Your task to perform on an android device: Turn off the flashlight Image 0: 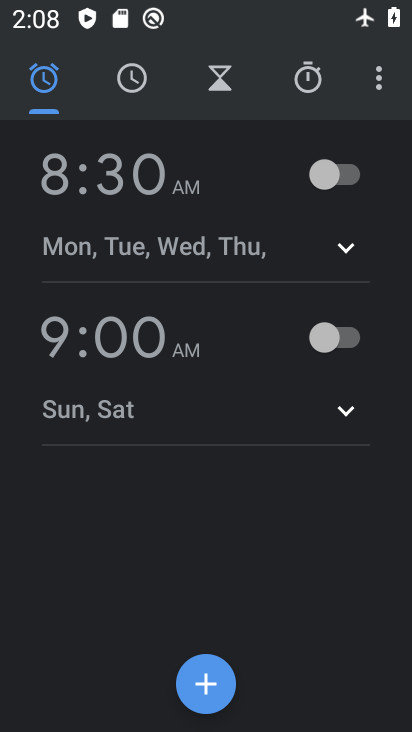
Step 0: press home button
Your task to perform on an android device: Turn off the flashlight Image 1: 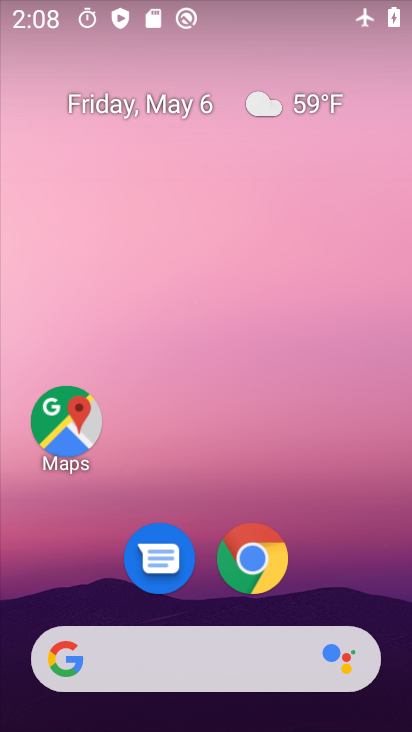
Step 1: drag from (211, 726) to (181, 318)
Your task to perform on an android device: Turn off the flashlight Image 2: 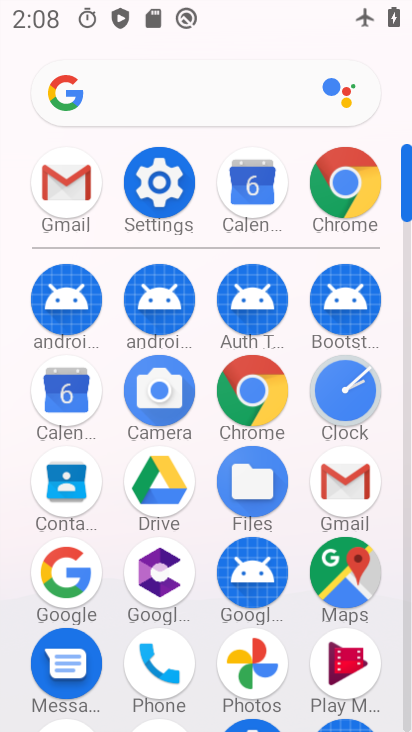
Step 2: click (168, 182)
Your task to perform on an android device: Turn off the flashlight Image 3: 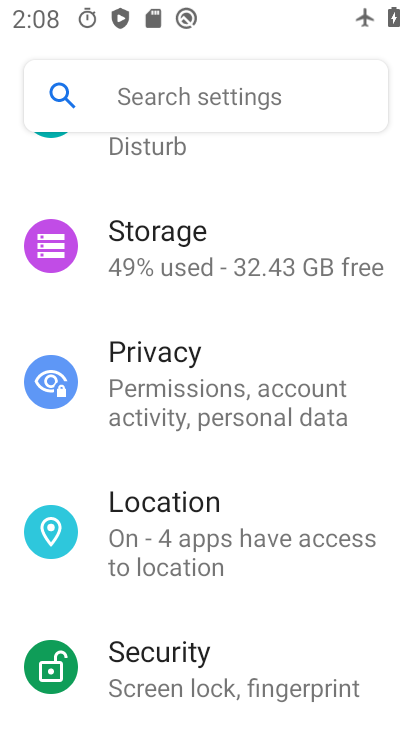
Step 3: task complete